Your task to perform on an android device: Go to Yahoo.com Image 0: 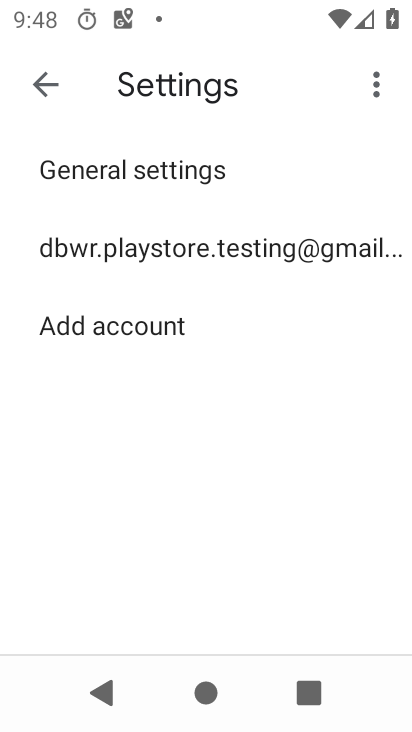
Step 0: press home button
Your task to perform on an android device: Go to Yahoo.com Image 1: 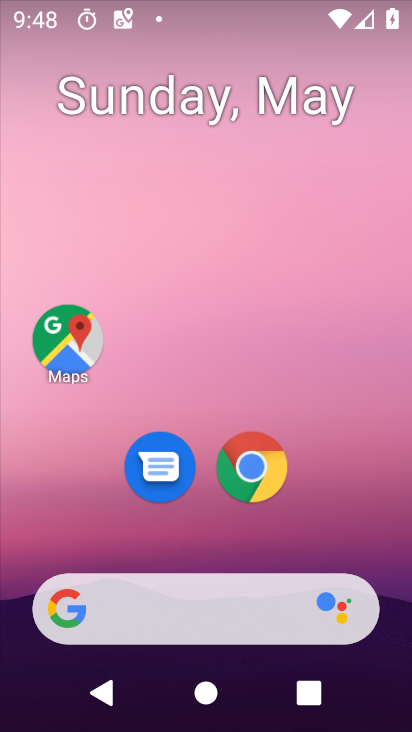
Step 1: click (234, 472)
Your task to perform on an android device: Go to Yahoo.com Image 2: 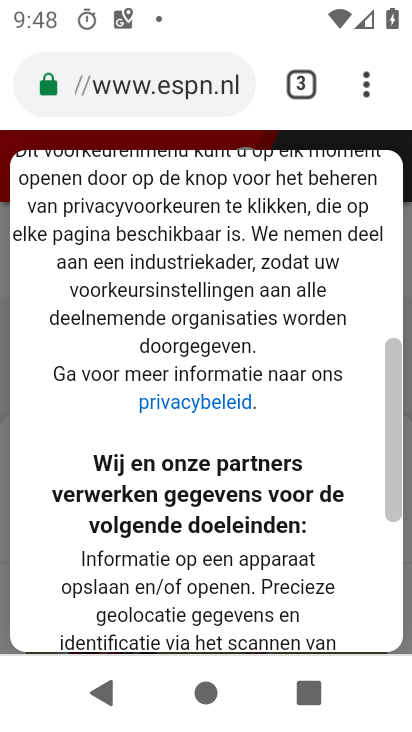
Step 2: click (307, 91)
Your task to perform on an android device: Go to Yahoo.com Image 3: 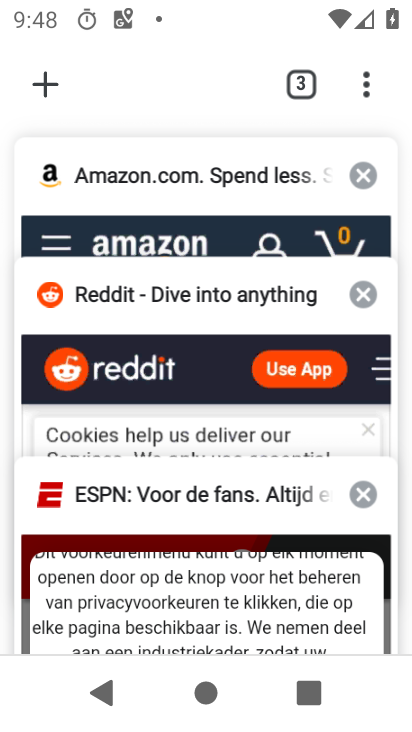
Step 3: click (51, 82)
Your task to perform on an android device: Go to Yahoo.com Image 4: 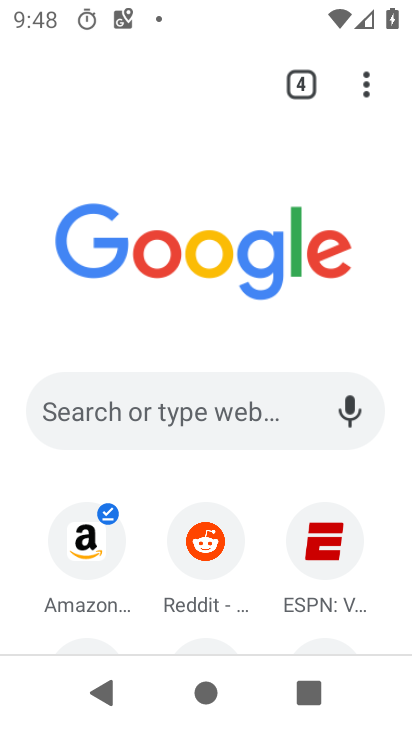
Step 4: drag from (281, 554) to (263, 259)
Your task to perform on an android device: Go to Yahoo.com Image 5: 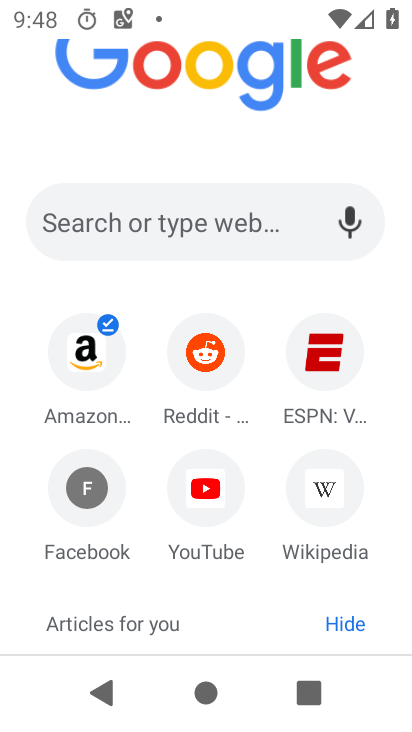
Step 5: drag from (182, 475) to (193, 527)
Your task to perform on an android device: Go to Yahoo.com Image 6: 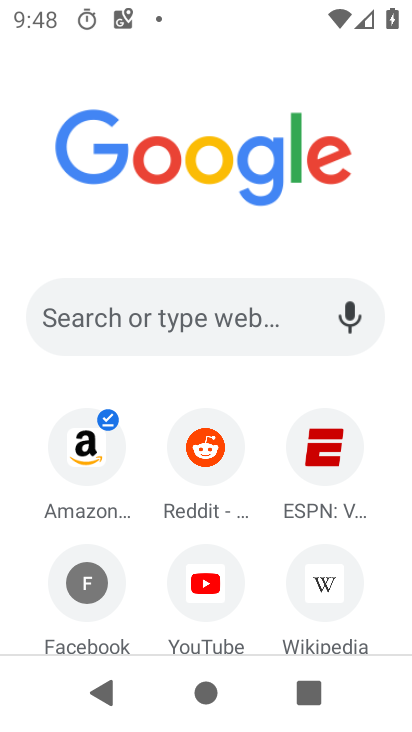
Step 6: click (157, 323)
Your task to perform on an android device: Go to Yahoo.com Image 7: 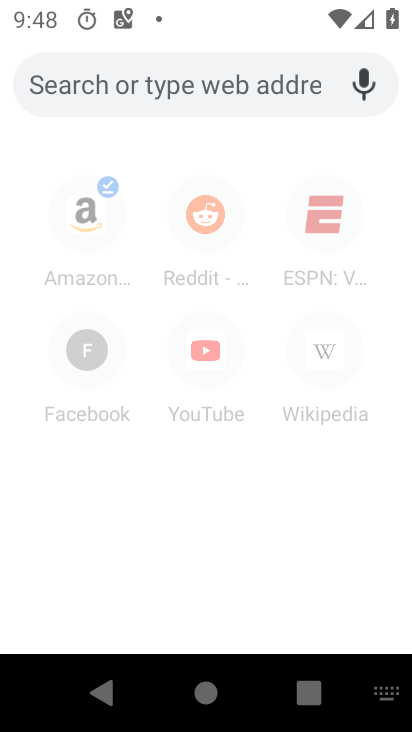
Step 7: type "Yahoo.com"
Your task to perform on an android device: Go to Yahoo.com Image 8: 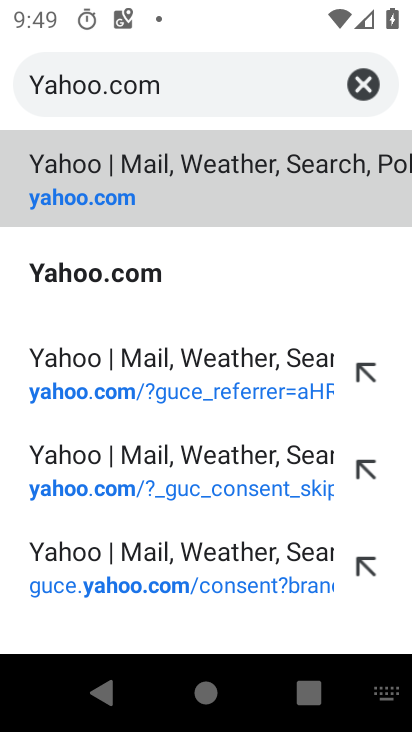
Step 8: click (161, 295)
Your task to perform on an android device: Go to Yahoo.com Image 9: 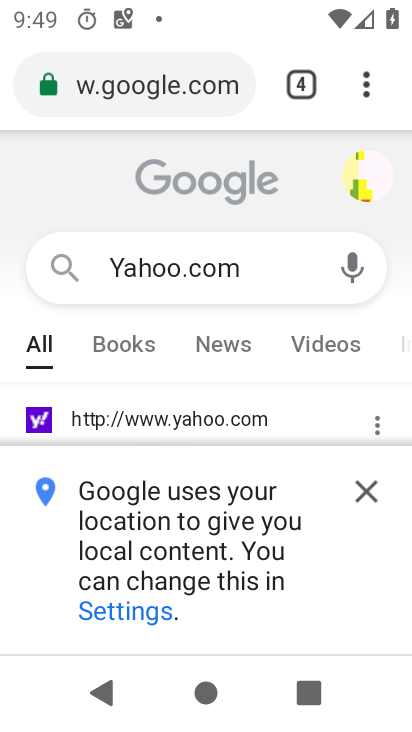
Step 9: click (377, 494)
Your task to perform on an android device: Go to Yahoo.com Image 10: 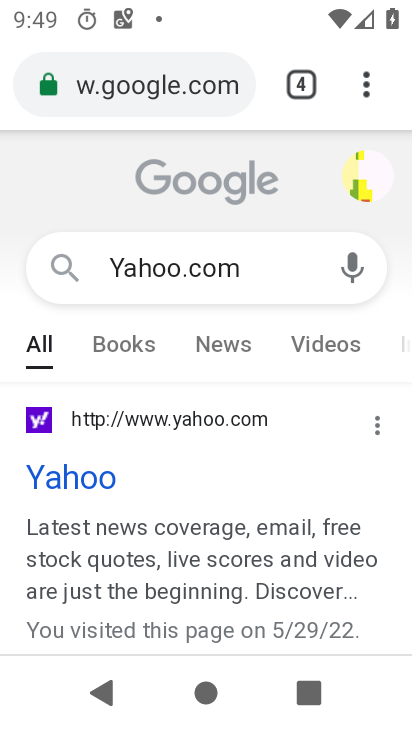
Step 10: click (130, 416)
Your task to perform on an android device: Go to Yahoo.com Image 11: 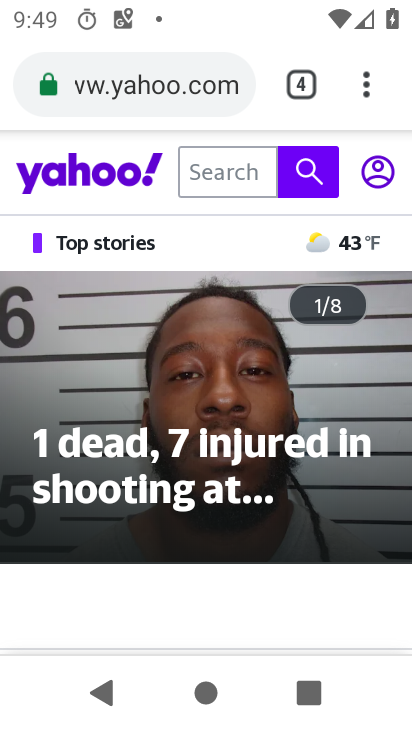
Step 11: task complete